Your task to perform on an android device: turn on showing notifications on the lock screen Image 0: 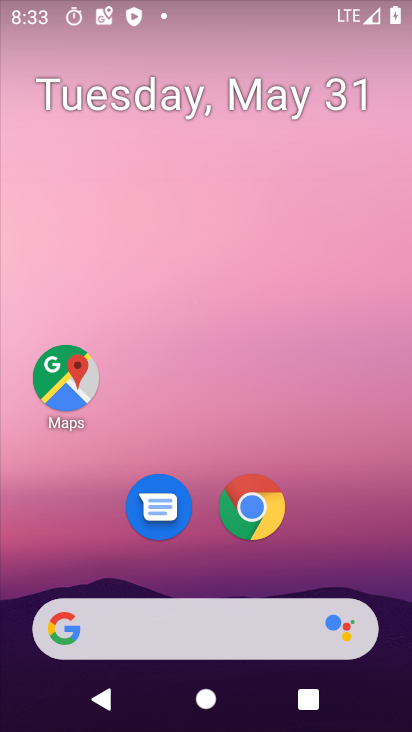
Step 0: drag from (46, 336) to (129, 95)
Your task to perform on an android device: turn on showing notifications on the lock screen Image 1: 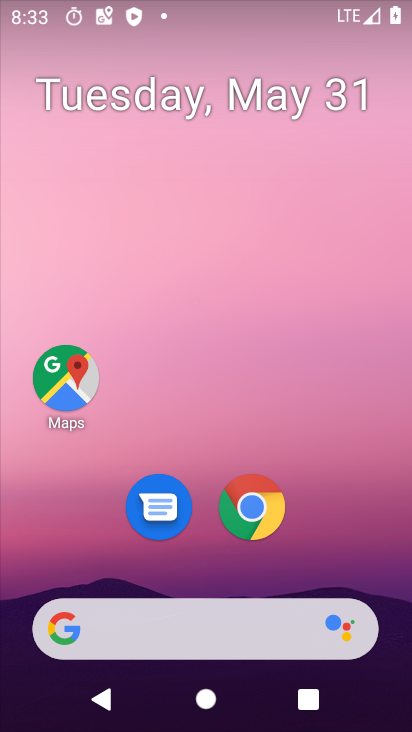
Step 1: drag from (16, 652) to (158, 266)
Your task to perform on an android device: turn on showing notifications on the lock screen Image 2: 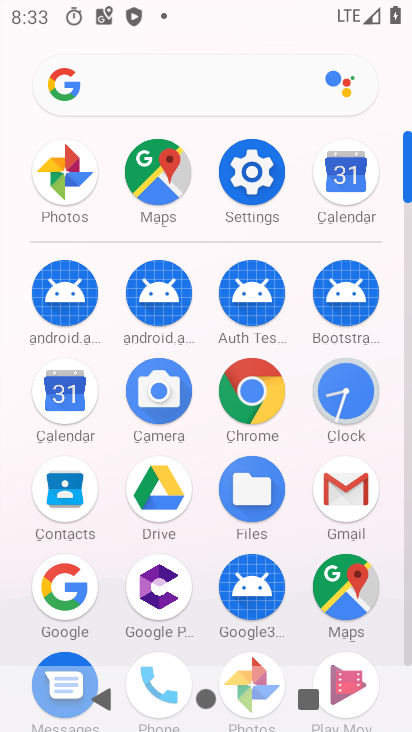
Step 2: click (266, 184)
Your task to perform on an android device: turn on showing notifications on the lock screen Image 3: 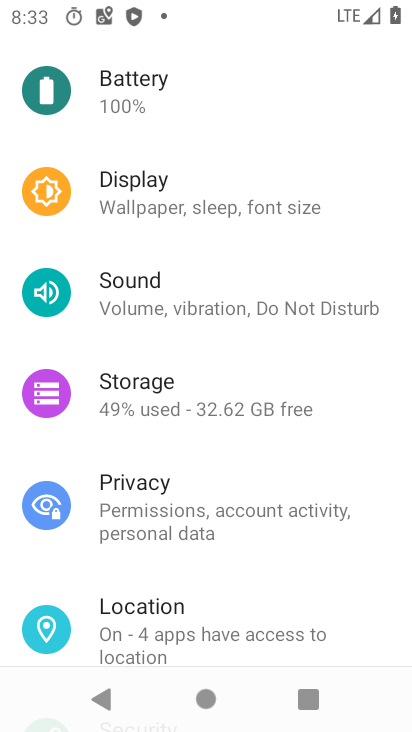
Step 3: drag from (194, 147) to (177, 613)
Your task to perform on an android device: turn on showing notifications on the lock screen Image 4: 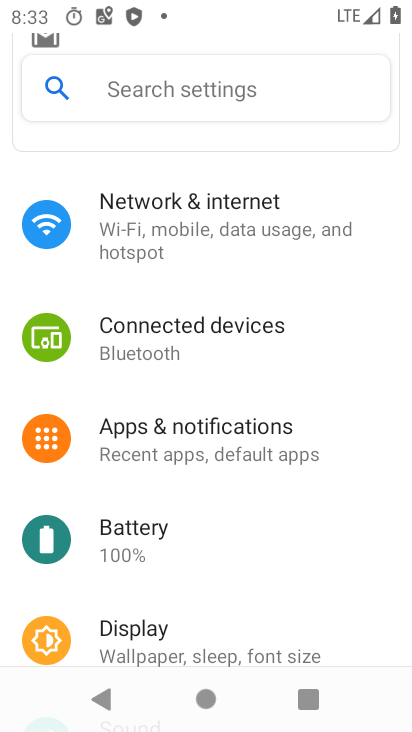
Step 4: click (138, 460)
Your task to perform on an android device: turn on showing notifications on the lock screen Image 5: 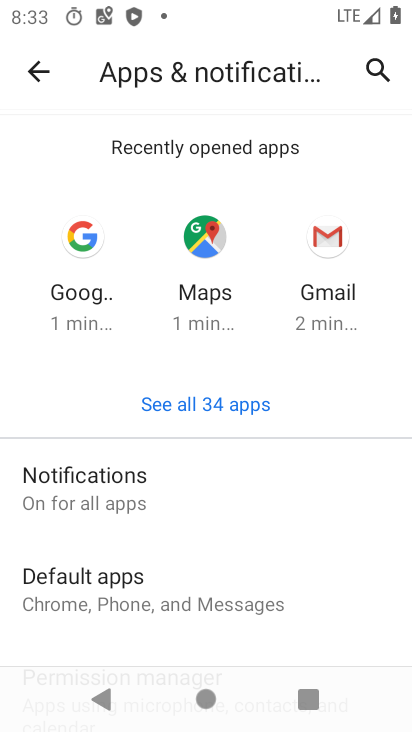
Step 5: click (134, 484)
Your task to perform on an android device: turn on showing notifications on the lock screen Image 6: 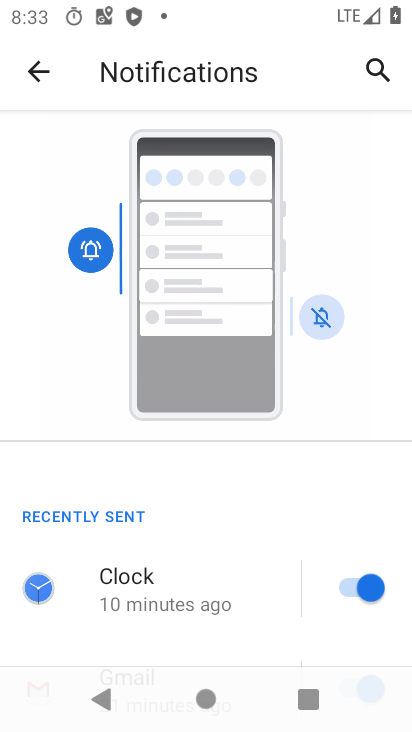
Step 6: drag from (20, 492) to (159, 207)
Your task to perform on an android device: turn on showing notifications on the lock screen Image 7: 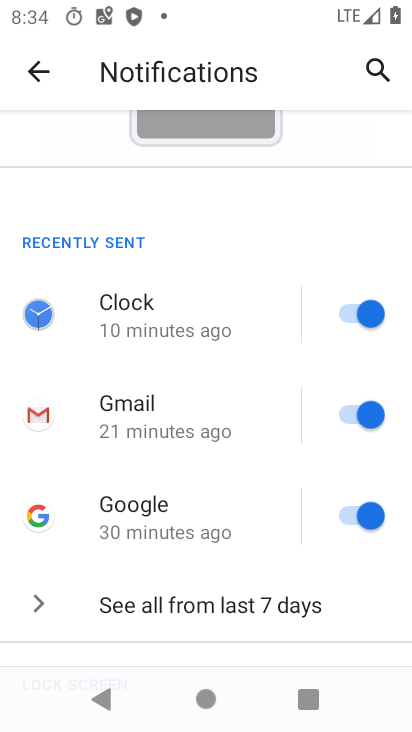
Step 7: drag from (8, 471) to (305, 150)
Your task to perform on an android device: turn on showing notifications on the lock screen Image 8: 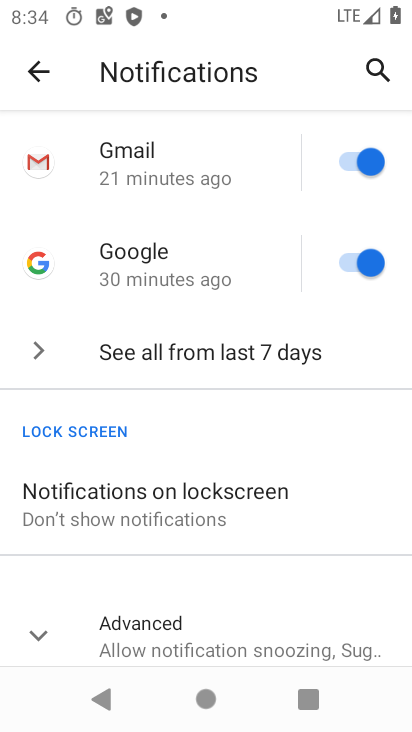
Step 8: click (111, 503)
Your task to perform on an android device: turn on showing notifications on the lock screen Image 9: 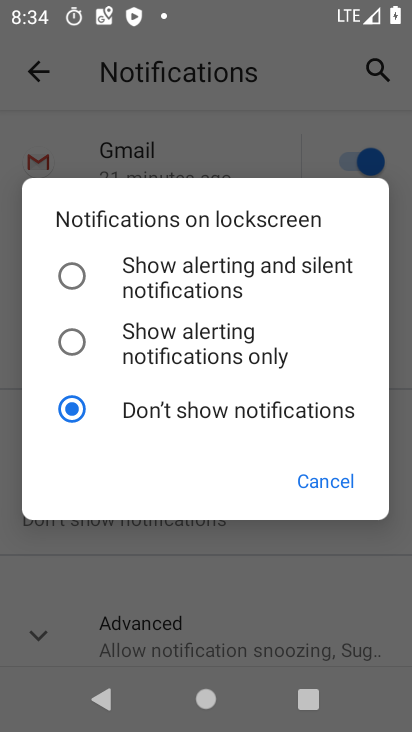
Step 9: click (59, 290)
Your task to perform on an android device: turn on showing notifications on the lock screen Image 10: 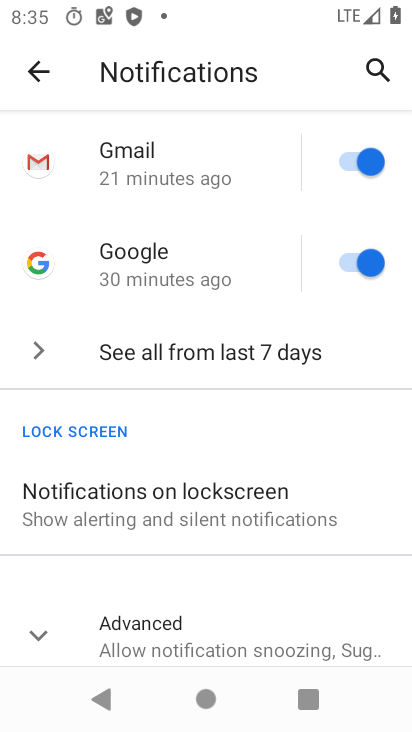
Step 10: click (255, 484)
Your task to perform on an android device: turn on showing notifications on the lock screen Image 11: 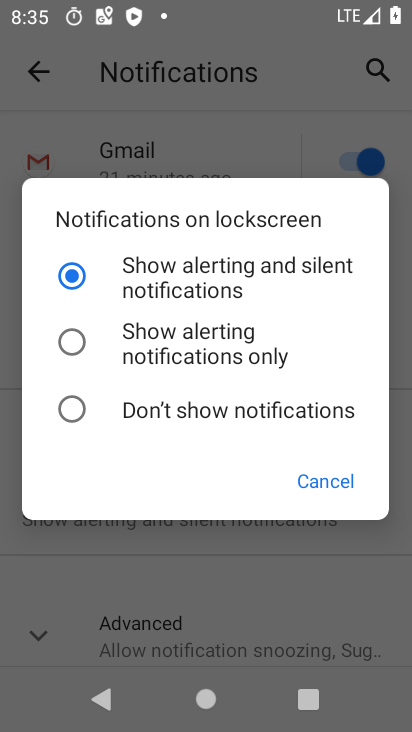
Step 11: task complete